Your task to perform on an android device: set the timer Image 0: 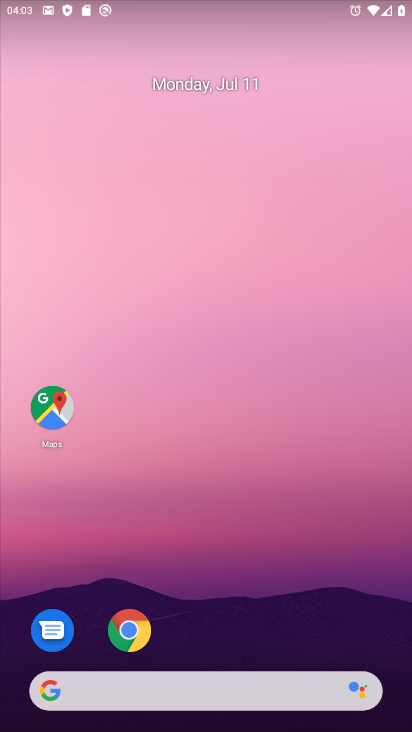
Step 0: press home button
Your task to perform on an android device: set the timer Image 1: 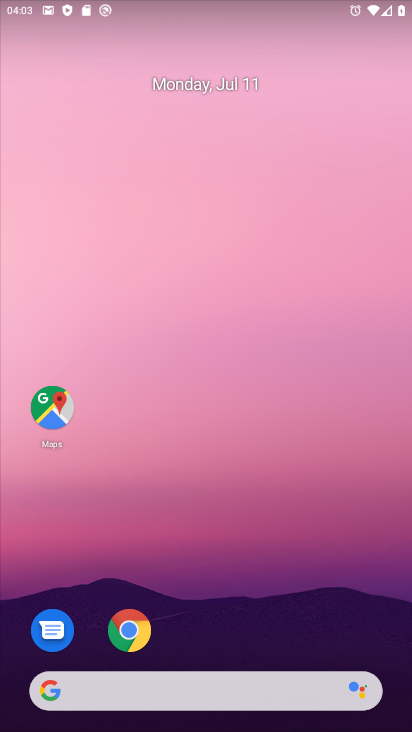
Step 1: drag from (209, 650) to (241, 16)
Your task to perform on an android device: set the timer Image 2: 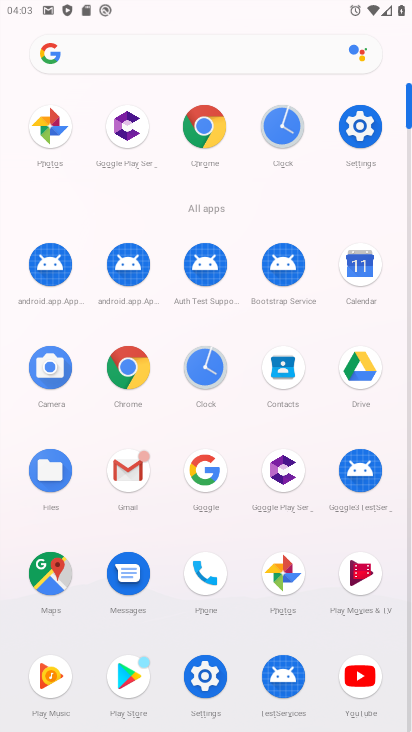
Step 2: click (280, 125)
Your task to perform on an android device: set the timer Image 3: 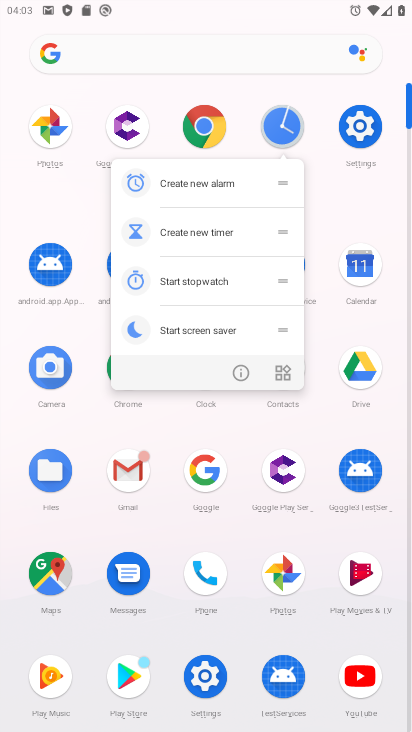
Step 3: click (282, 116)
Your task to perform on an android device: set the timer Image 4: 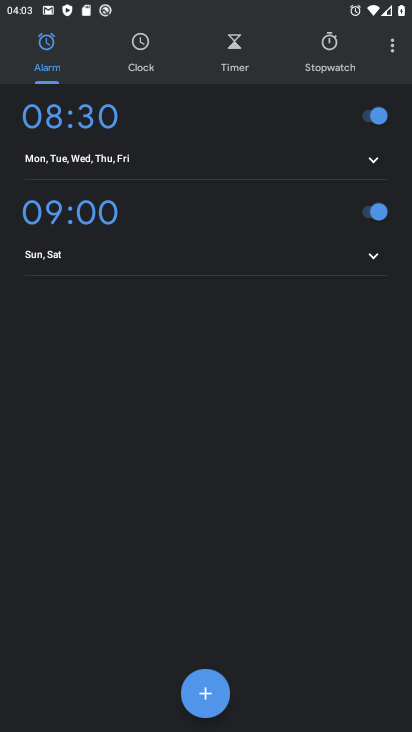
Step 4: click (233, 41)
Your task to perform on an android device: set the timer Image 5: 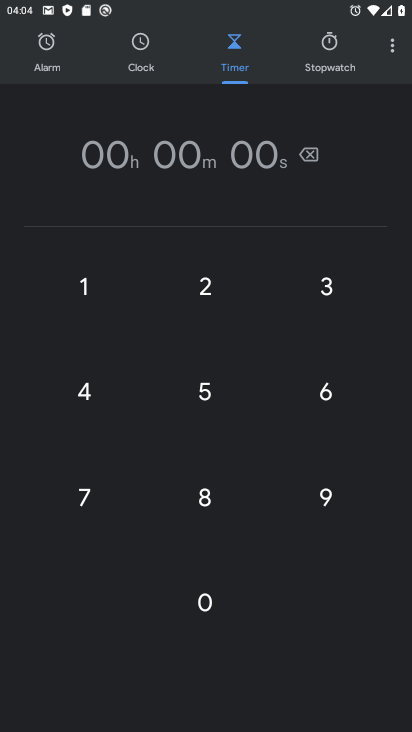
Step 5: click (207, 281)
Your task to perform on an android device: set the timer Image 6: 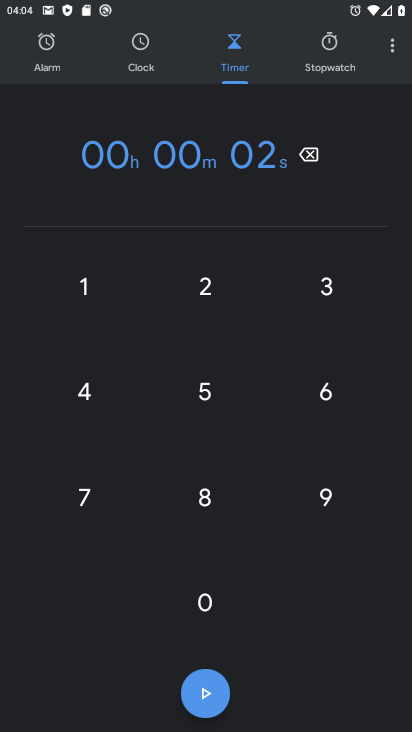
Step 6: click (206, 601)
Your task to perform on an android device: set the timer Image 7: 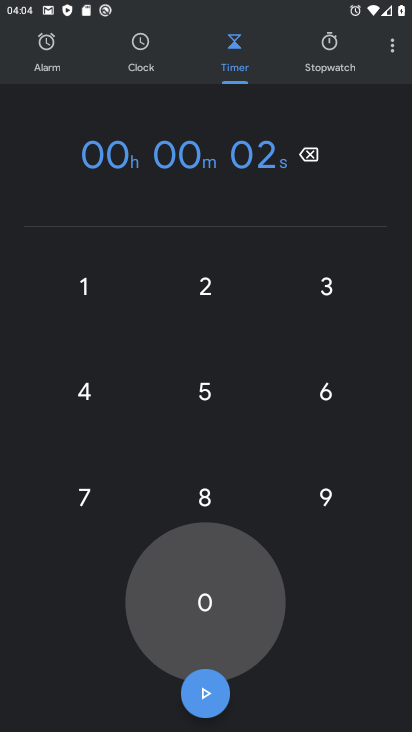
Step 7: click (206, 601)
Your task to perform on an android device: set the timer Image 8: 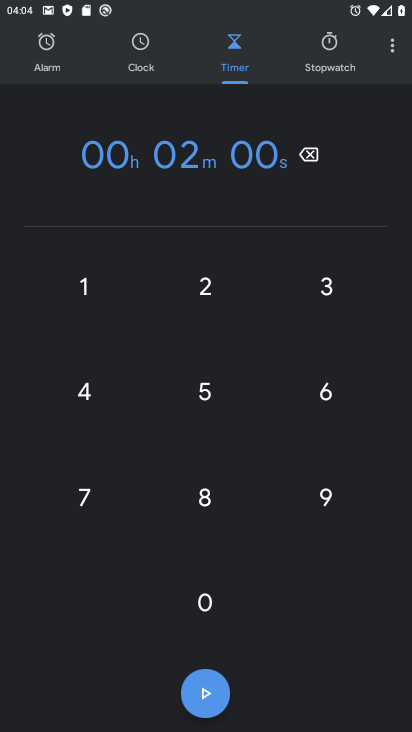
Step 8: click (206, 601)
Your task to perform on an android device: set the timer Image 9: 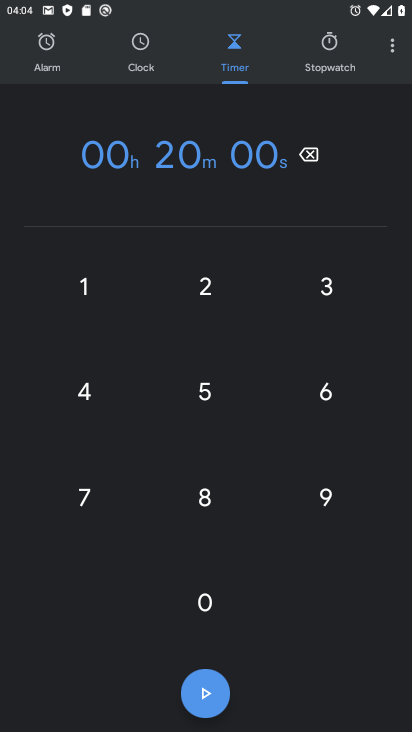
Step 9: click (206, 688)
Your task to perform on an android device: set the timer Image 10: 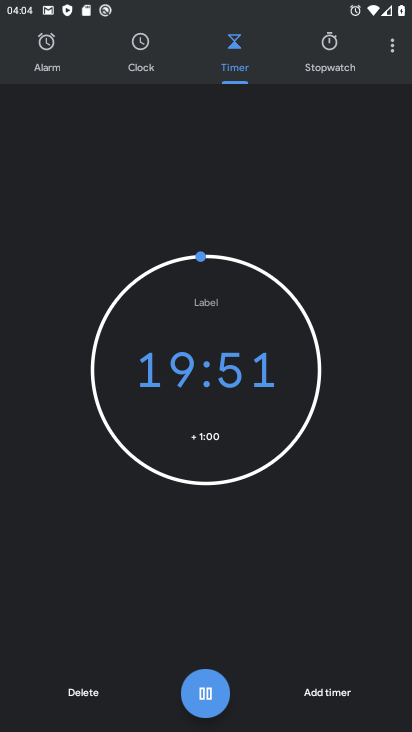
Step 10: click (80, 686)
Your task to perform on an android device: set the timer Image 11: 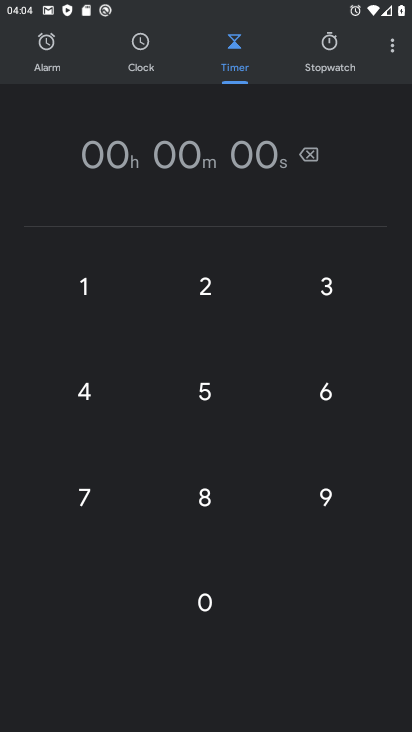
Step 11: task complete